Your task to perform on an android device: find snoozed emails in the gmail app Image 0: 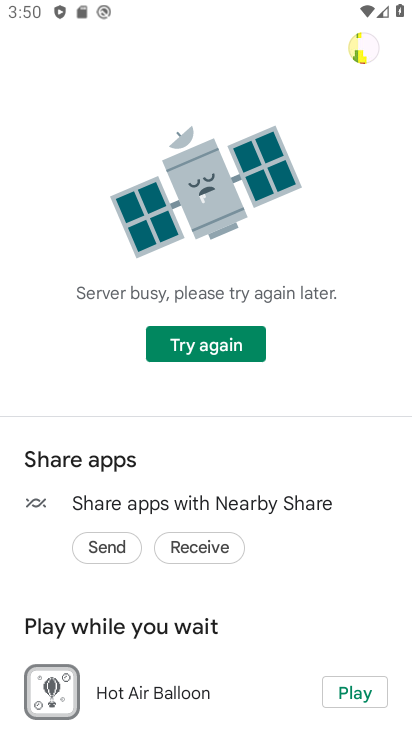
Step 0: press home button
Your task to perform on an android device: find snoozed emails in the gmail app Image 1: 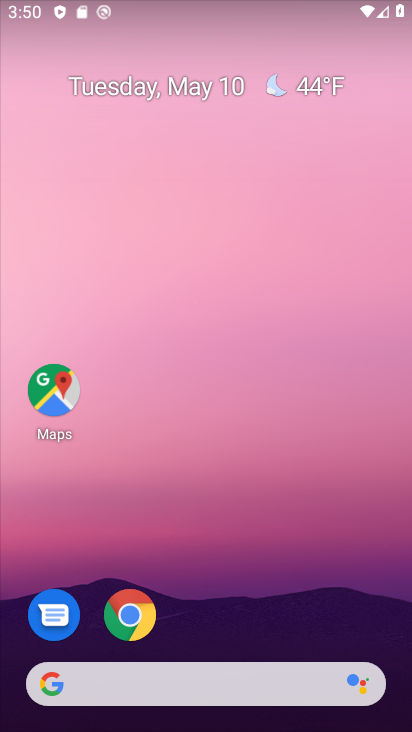
Step 1: drag from (180, 701) to (178, 182)
Your task to perform on an android device: find snoozed emails in the gmail app Image 2: 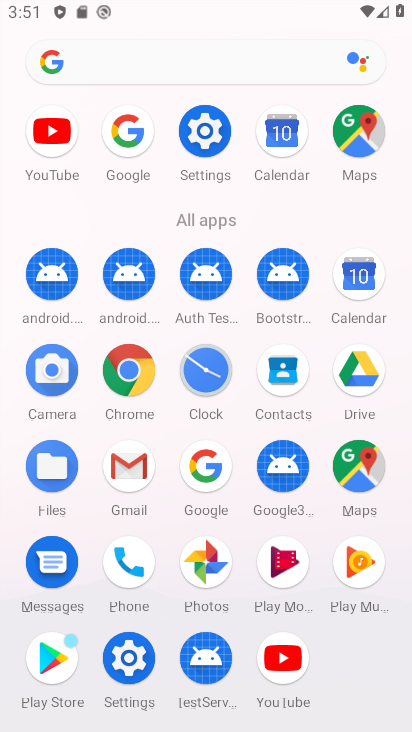
Step 2: click (131, 468)
Your task to perform on an android device: find snoozed emails in the gmail app Image 3: 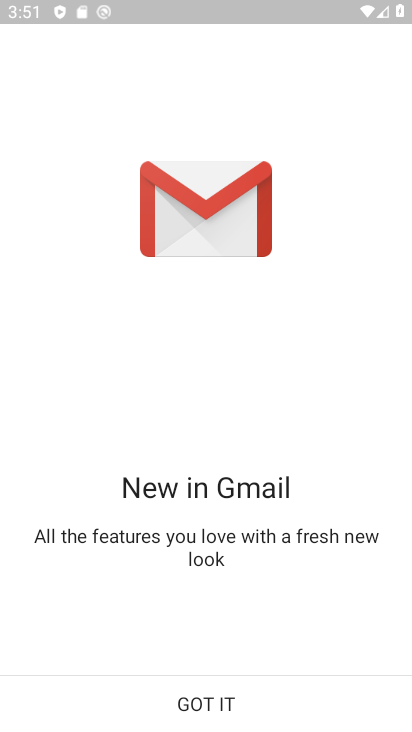
Step 3: click (194, 708)
Your task to perform on an android device: find snoozed emails in the gmail app Image 4: 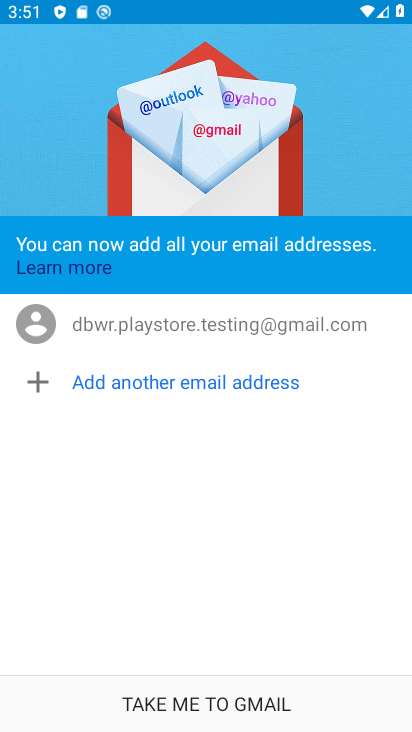
Step 4: click (194, 708)
Your task to perform on an android device: find snoozed emails in the gmail app Image 5: 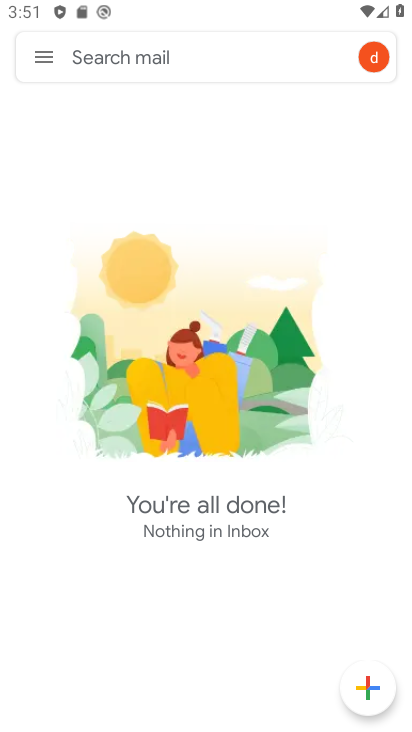
Step 5: click (38, 54)
Your task to perform on an android device: find snoozed emails in the gmail app Image 6: 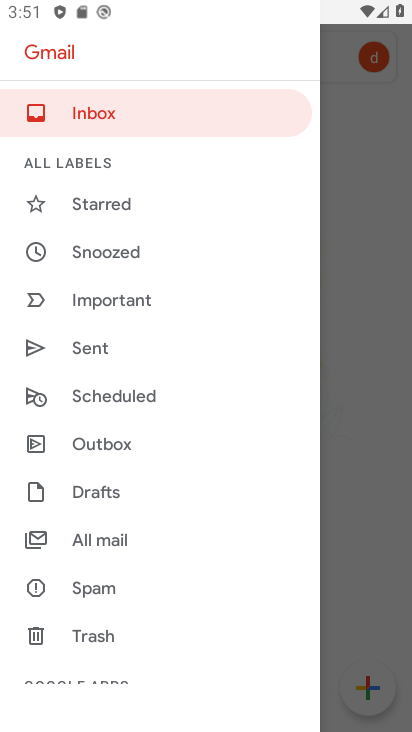
Step 6: click (88, 255)
Your task to perform on an android device: find snoozed emails in the gmail app Image 7: 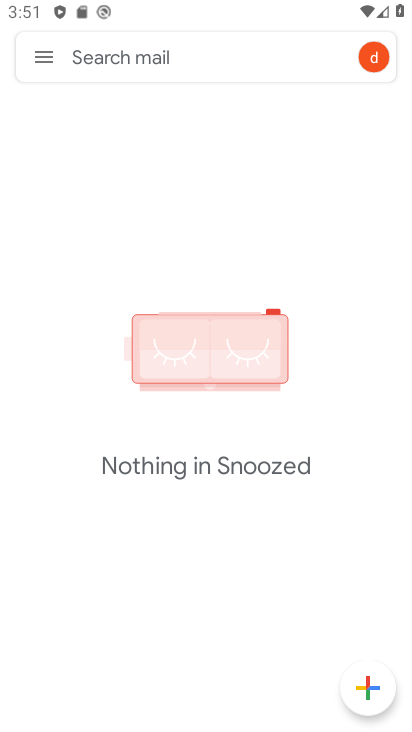
Step 7: task complete